Your task to perform on an android device: Open the contacts app Image 0: 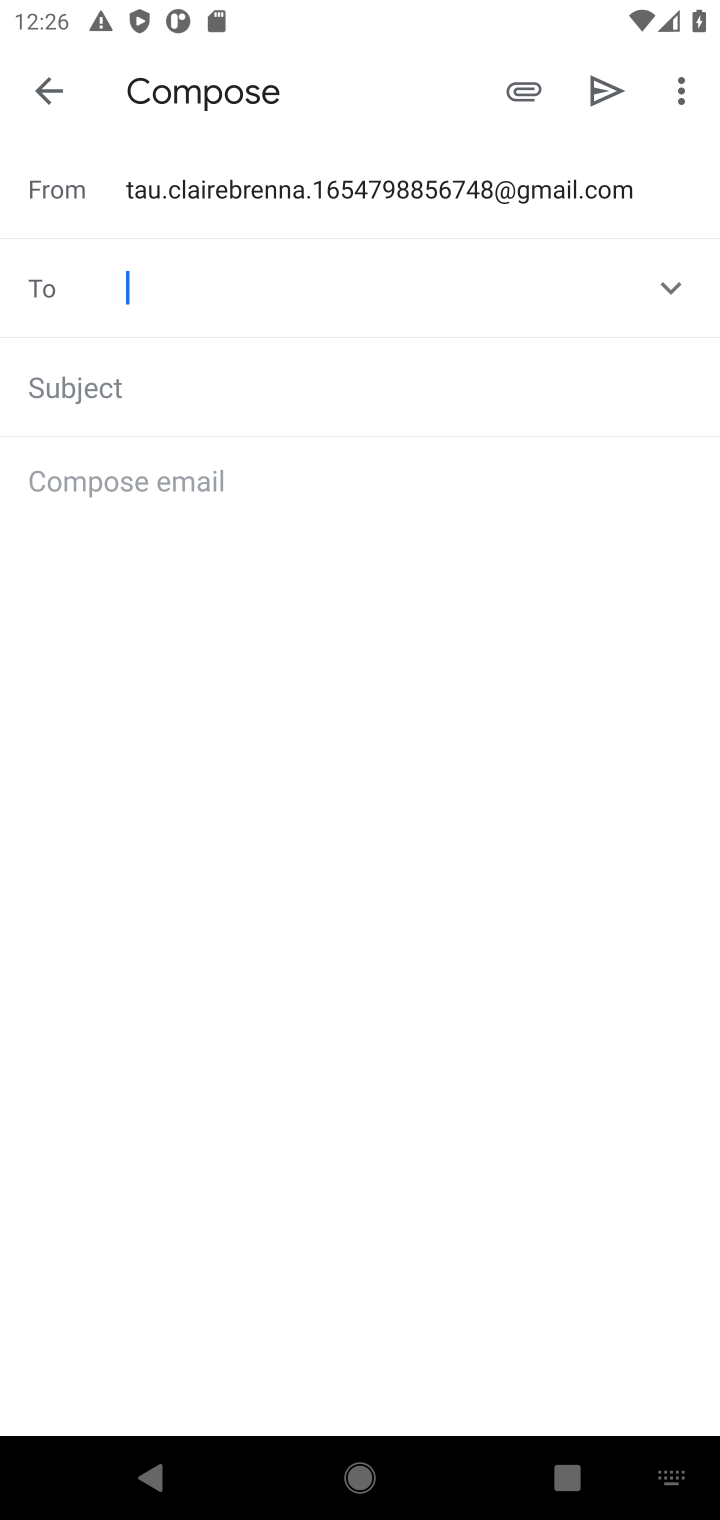
Step 0: press home button
Your task to perform on an android device: Open the contacts app Image 1: 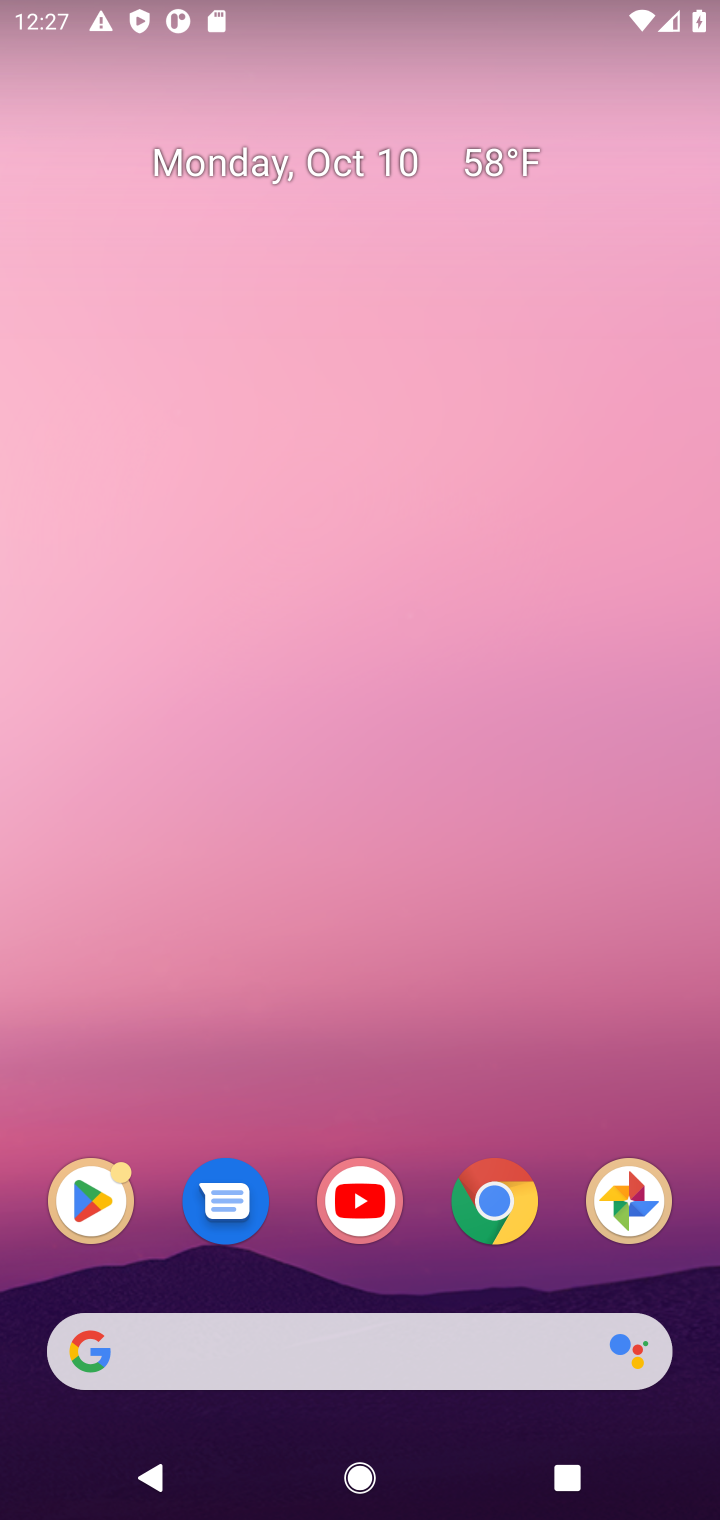
Step 1: drag from (343, 1296) to (372, 157)
Your task to perform on an android device: Open the contacts app Image 2: 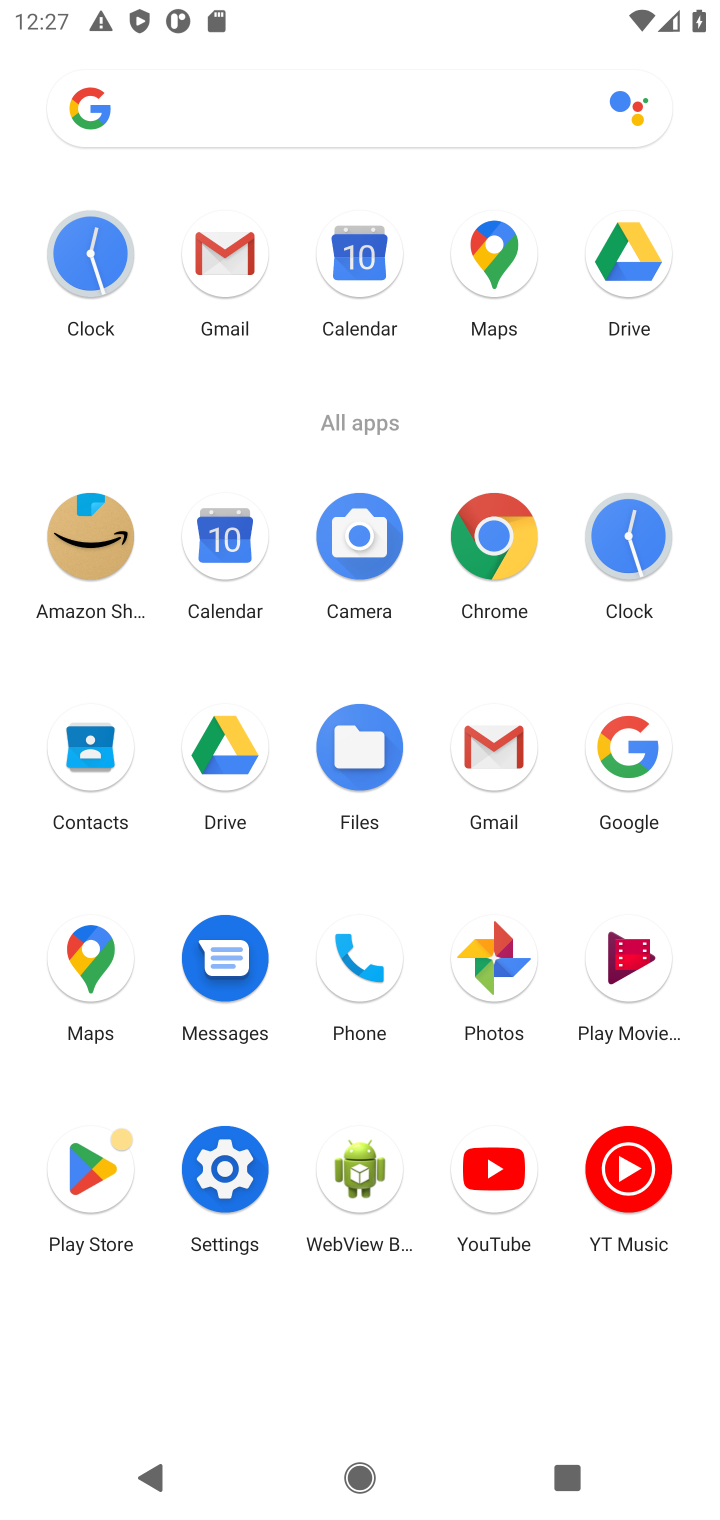
Step 2: click (81, 789)
Your task to perform on an android device: Open the contacts app Image 3: 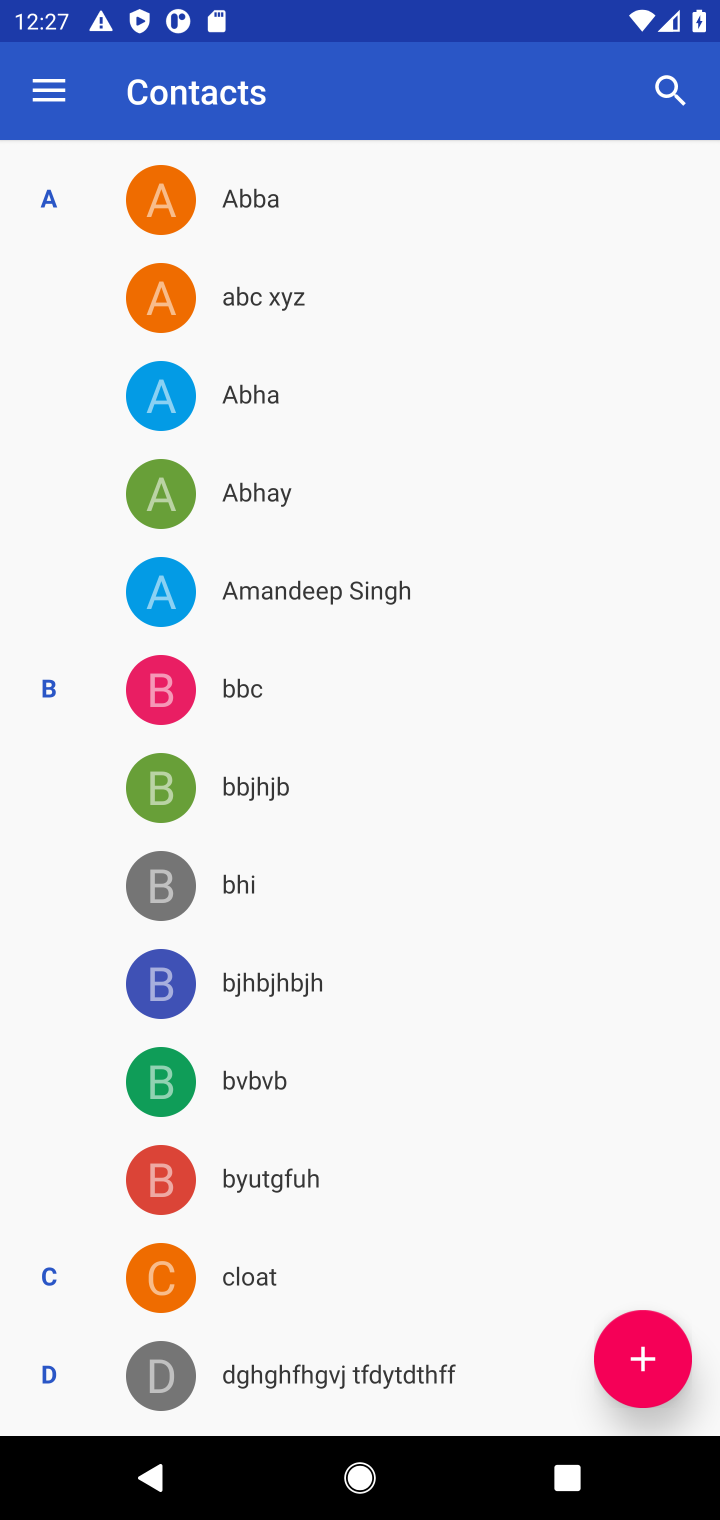
Step 3: task complete